Your task to perform on an android device: open sync settings in chrome Image 0: 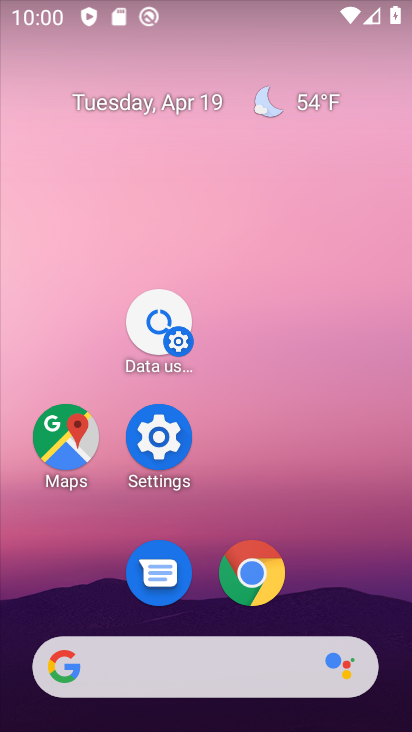
Step 0: click (239, 576)
Your task to perform on an android device: open sync settings in chrome Image 1: 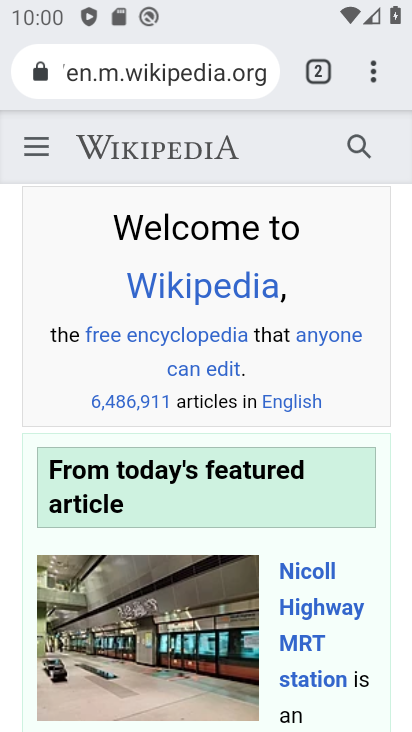
Step 1: click (373, 70)
Your task to perform on an android device: open sync settings in chrome Image 2: 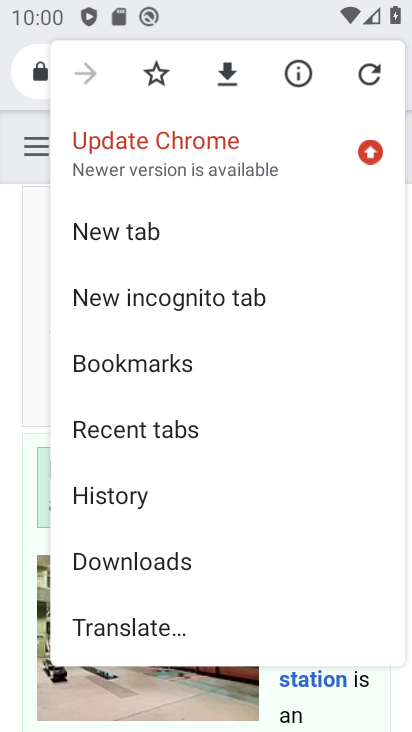
Step 2: drag from (220, 581) to (234, 156)
Your task to perform on an android device: open sync settings in chrome Image 3: 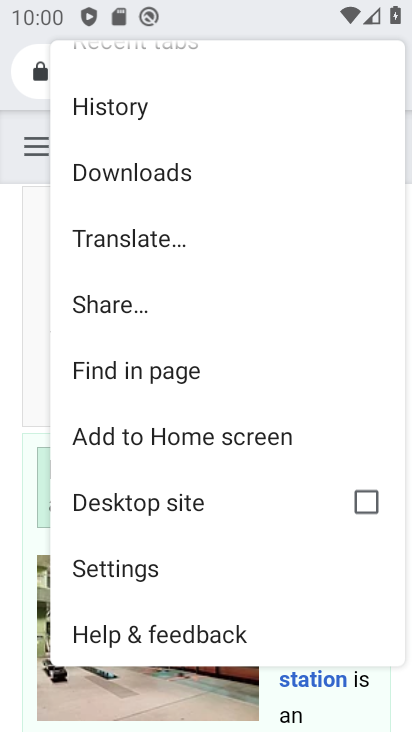
Step 3: drag from (228, 537) to (203, 175)
Your task to perform on an android device: open sync settings in chrome Image 4: 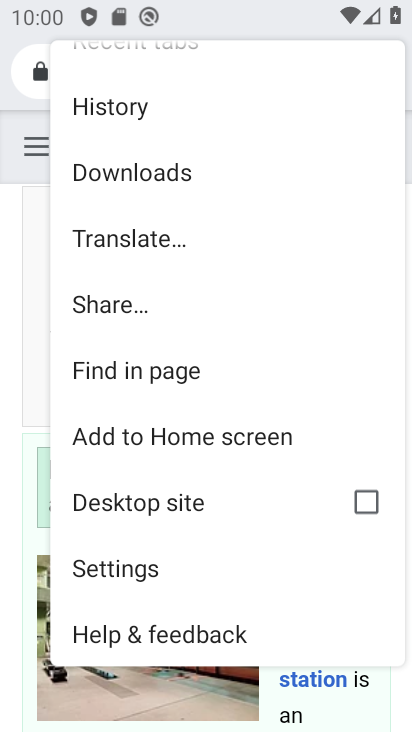
Step 4: click (107, 567)
Your task to perform on an android device: open sync settings in chrome Image 5: 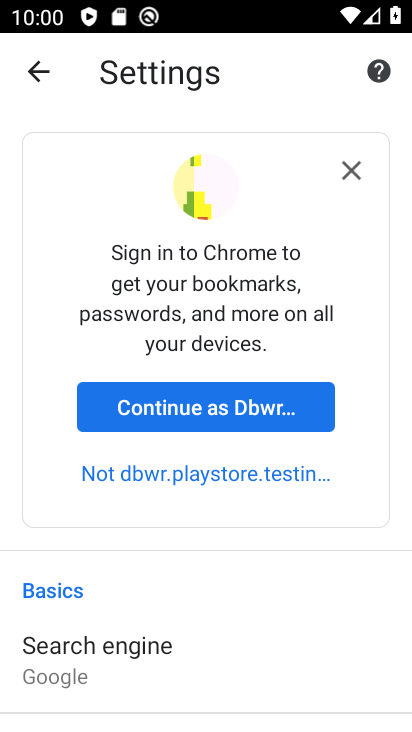
Step 5: click (203, 414)
Your task to perform on an android device: open sync settings in chrome Image 6: 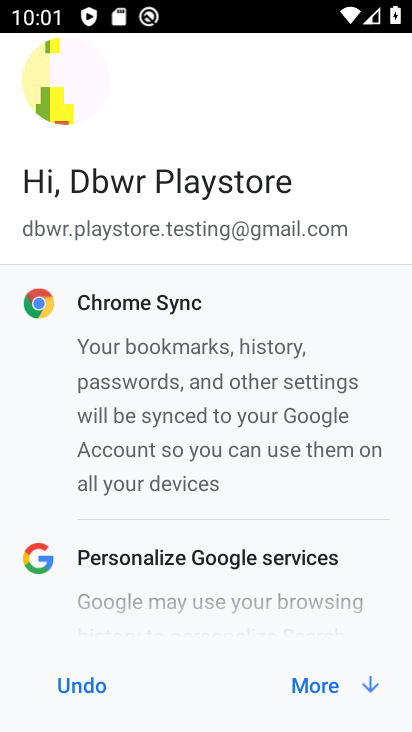
Step 6: click (305, 686)
Your task to perform on an android device: open sync settings in chrome Image 7: 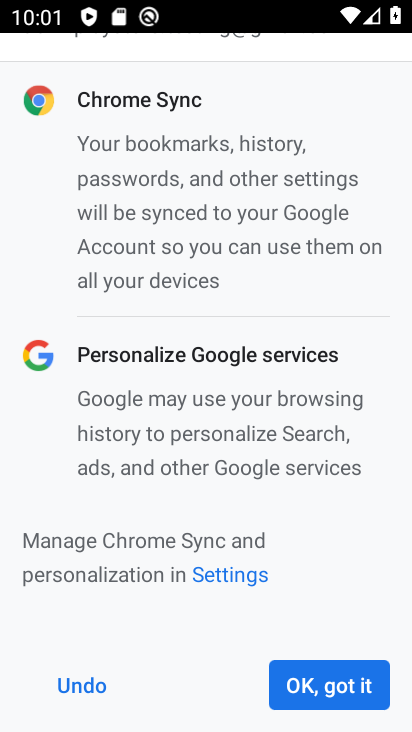
Step 7: click (305, 685)
Your task to perform on an android device: open sync settings in chrome Image 8: 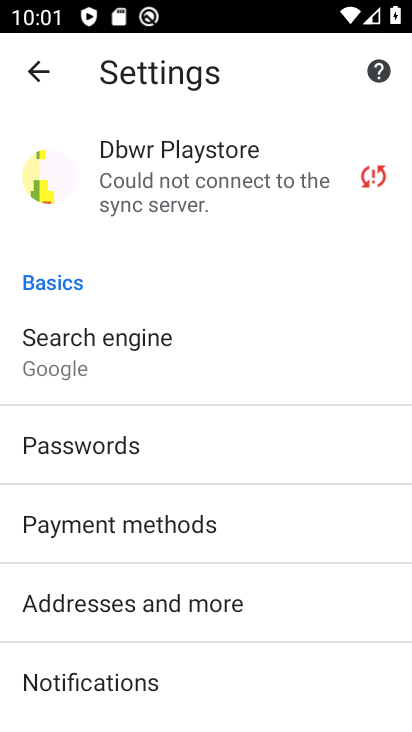
Step 8: click (164, 187)
Your task to perform on an android device: open sync settings in chrome Image 9: 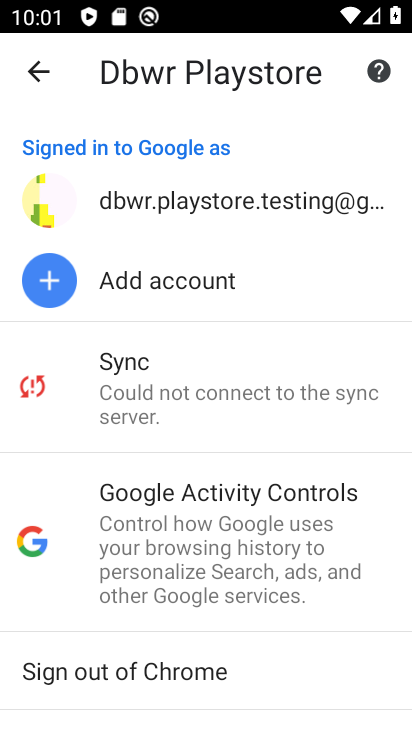
Step 9: click (168, 397)
Your task to perform on an android device: open sync settings in chrome Image 10: 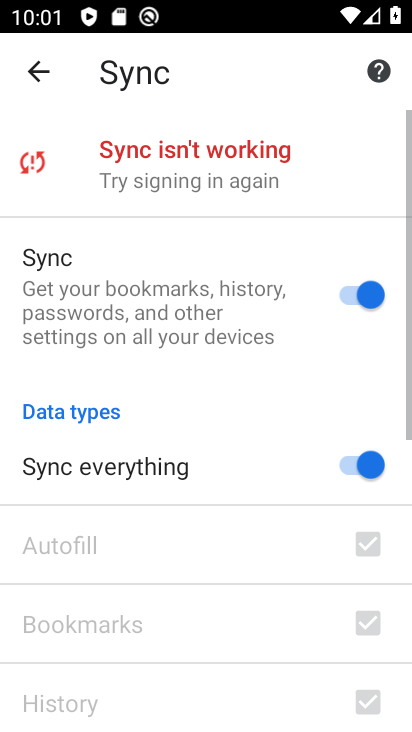
Step 10: task complete